Your task to perform on an android device: toggle priority inbox in the gmail app Image 0: 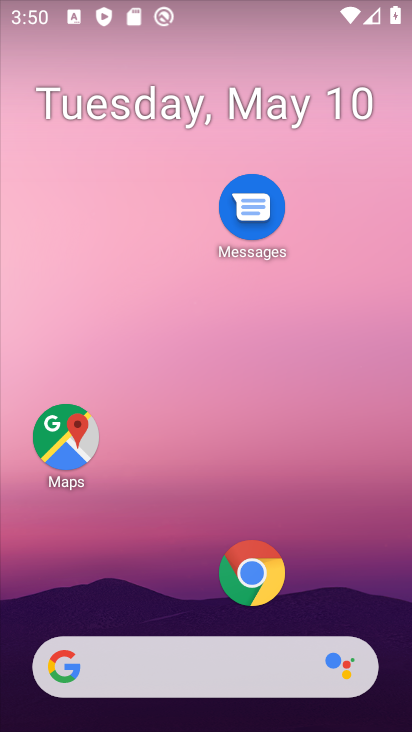
Step 0: click (160, 246)
Your task to perform on an android device: toggle priority inbox in the gmail app Image 1: 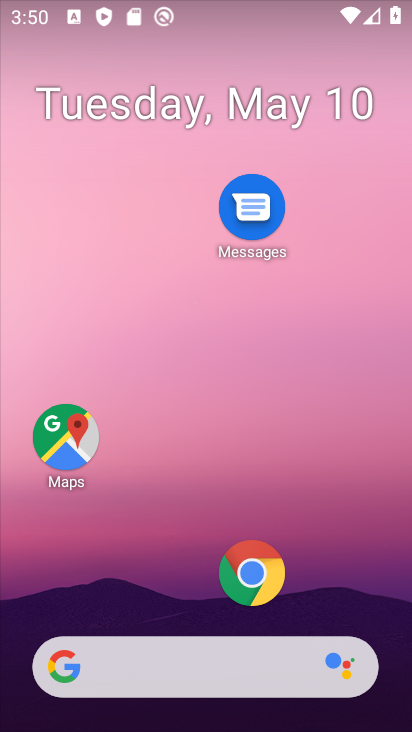
Step 1: drag from (189, 595) to (126, 129)
Your task to perform on an android device: toggle priority inbox in the gmail app Image 2: 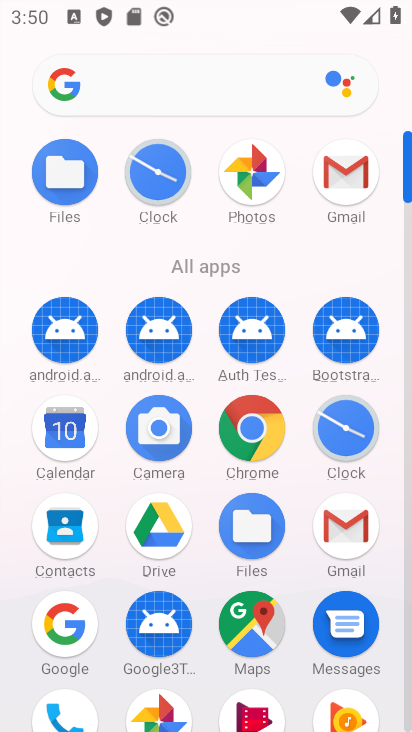
Step 2: click (331, 198)
Your task to perform on an android device: toggle priority inbox in the gmail app Image 3: 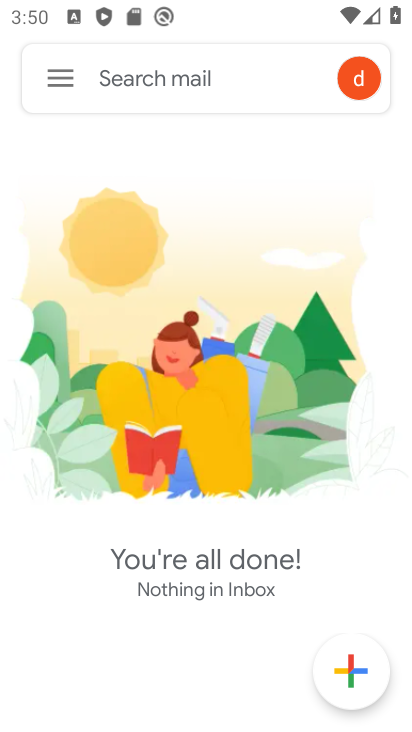
Step 3: click (70, 93)
Your task to perform on an android device: toggle priority inbox in the gmail app Image 4: 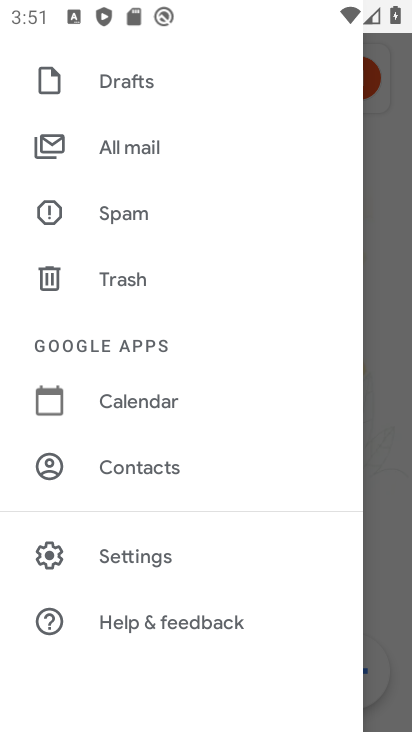
Step 4: click (130, 554)
Your task to perform on an android device: toggle priority inbox in the gmail app Image 5: 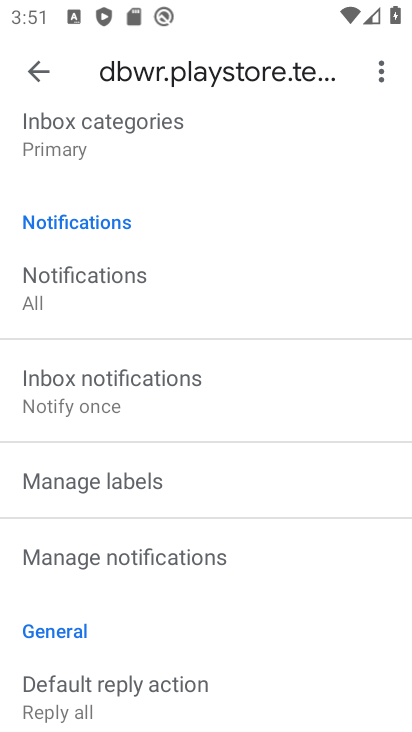
Step 5: drag from (189, 216) to (214, 390)
Your task to perform on an android device: toggle priority inbox in the gmail app Image 6: 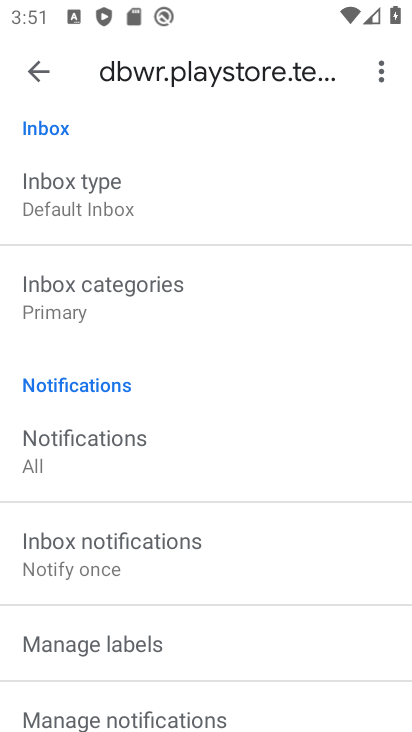
Step 6: drag from (153, 211) to (189, 460)
Your task to perform on an android device: toggle priority inbox in the gmail app Image 7: 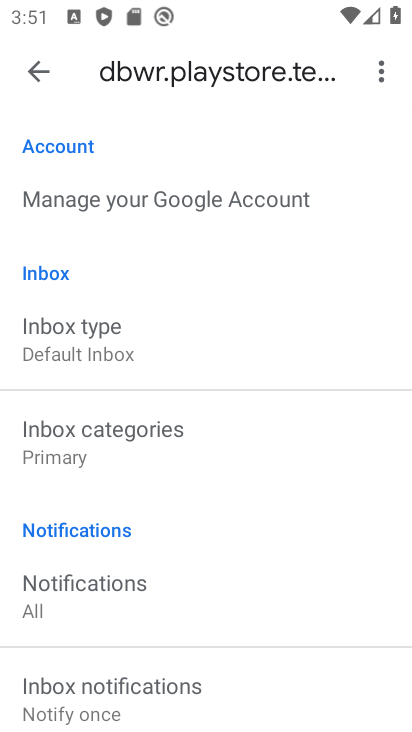
Step 7: drag from (147, 336) to (183, 543)
Your task to perform on an android device: toggle priority inbox in the gmail app Image 8: 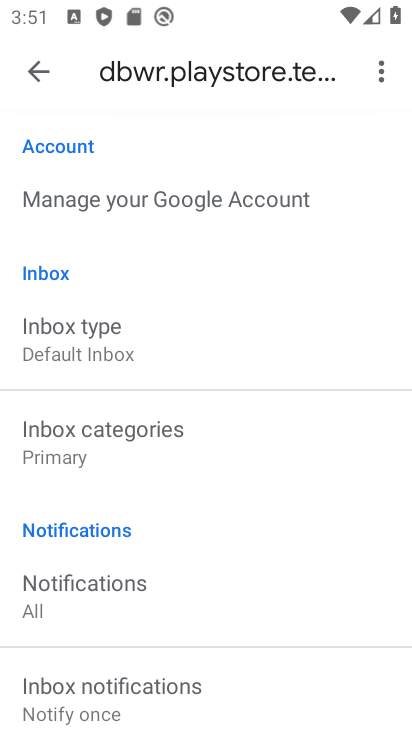
Step 8: click (107, 363)
Your task to perform on an android device: toggle priority inbox in the gmail app Image 9: 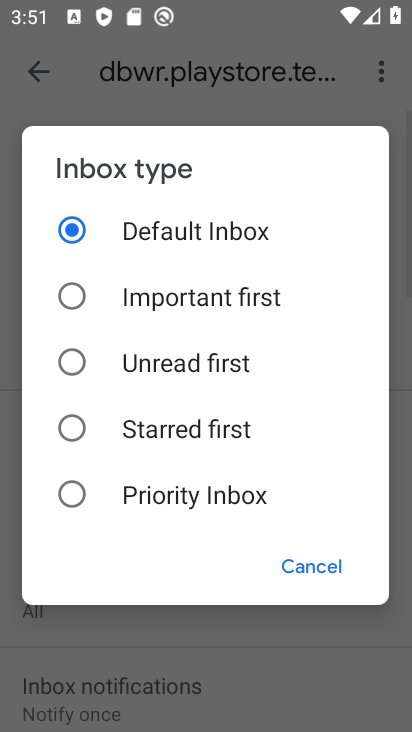
Step 9: click (141, 493)
Your task to perform on an android device: toggle priority inbox in the gmail app Image 10: 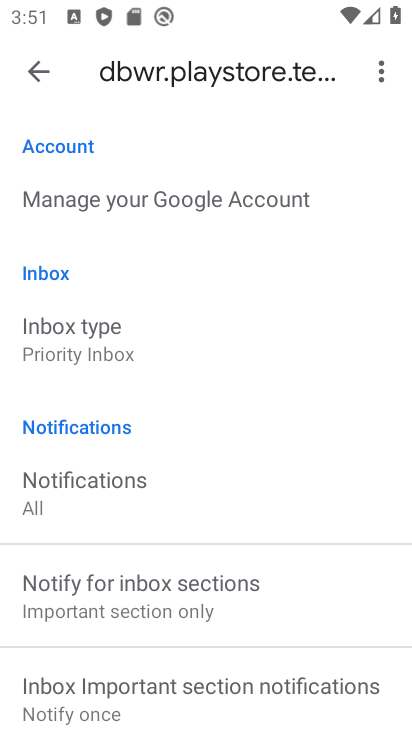
Step 10: task complete